Your task to perform on an android device: open app "Move to iOS" (install if not already installed) and enter user name: "Decca@icloud.com" and password: "reabbreviate" Image 0: 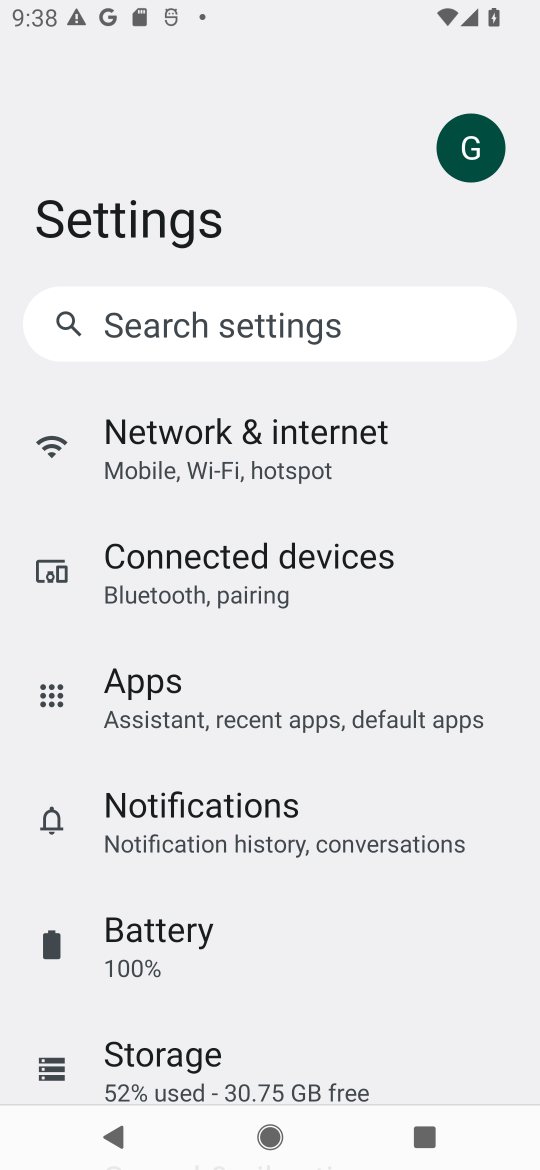
Step 0: press home button
Your task to perform on an android device: open app "Move to iOS" (install if not already installed) and enter user name: "Decca@icloud.com" and password: "reabbreviate" Image 1: 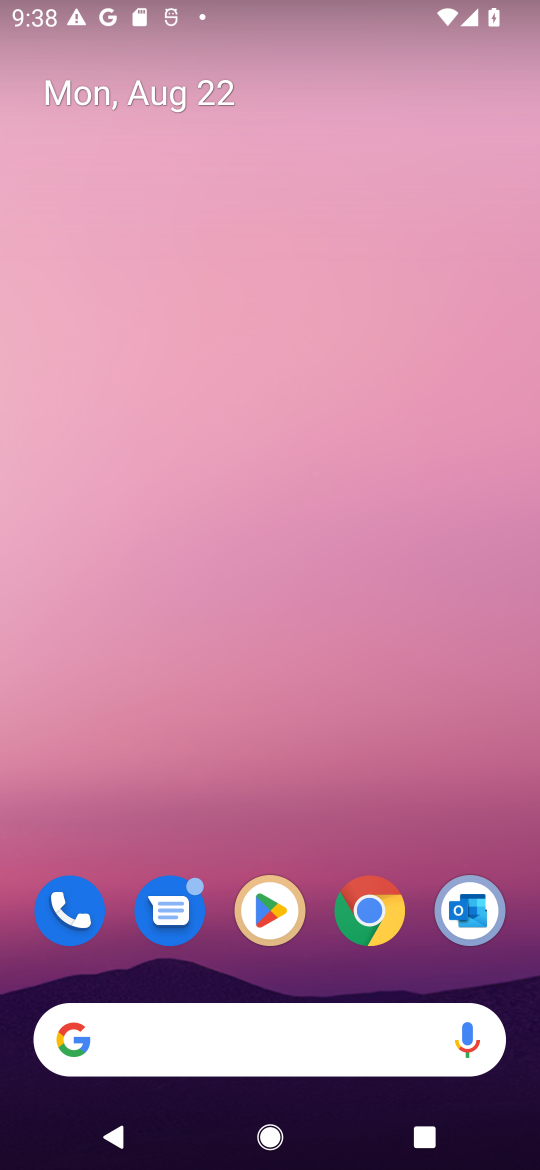
Step 1: click (266, 903)
Your task to perform on an android device: open app "Move to iOS" (install if not already installed) and enter user name: "Decca@icloud.com" and password: "reabbreviate" Image 2: 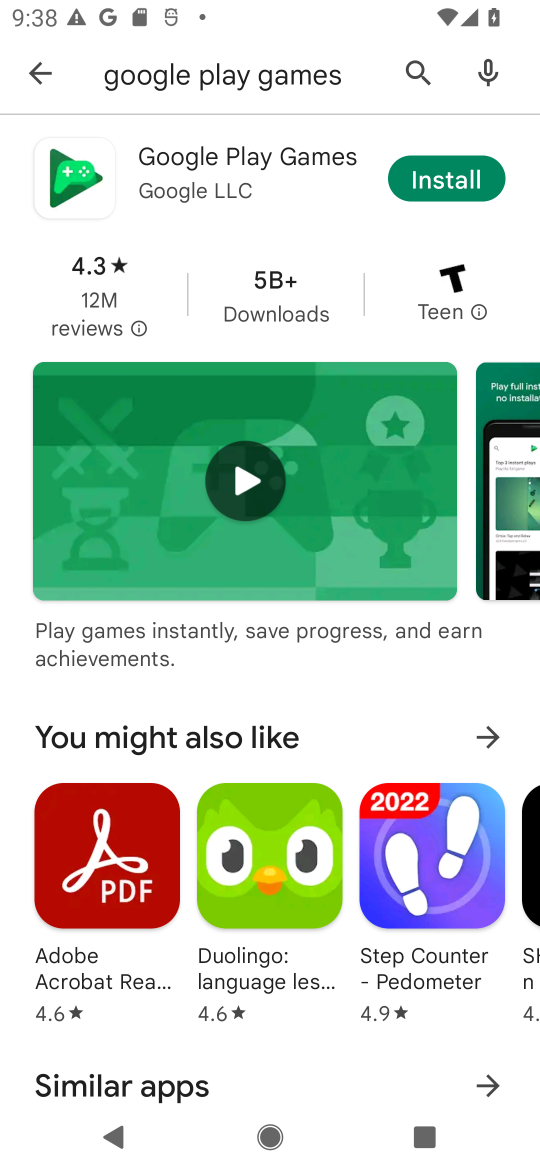
Step 2: click (413, 58)
Your task to perform on an android device: open app "Move to iOS" (install if not already installed) and enter user name: "Decca@icloud.com" and password: "reabbreviate" Image 3: 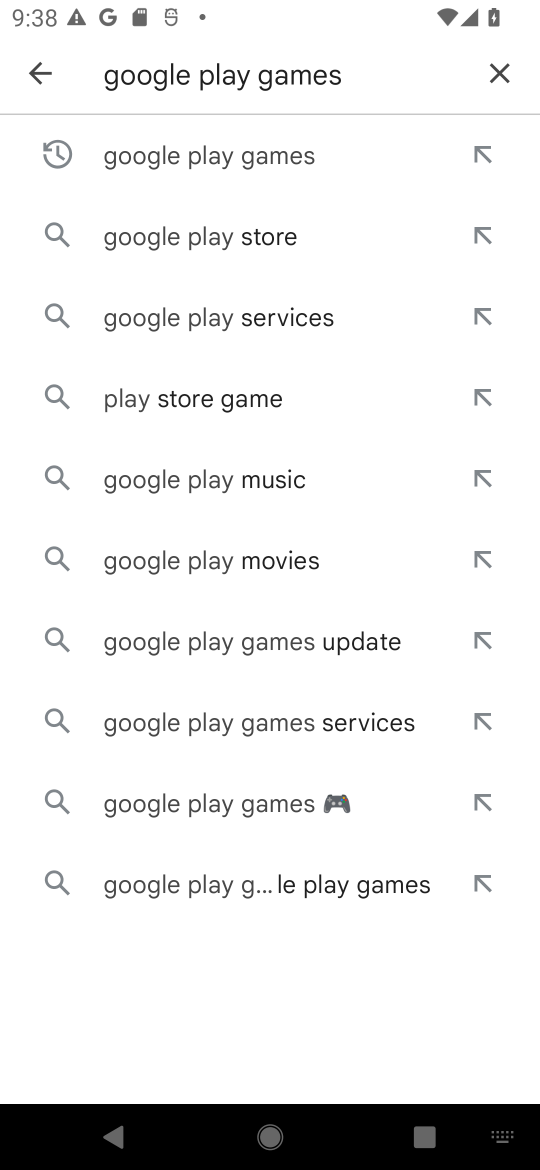
Step 3: click (498, 65)
Your task to perform on an android device: open app "Move to iOS" (install if not already installed) and enter user name: "Decca@icloud.com" and password: "reabbreviate" Image 4: 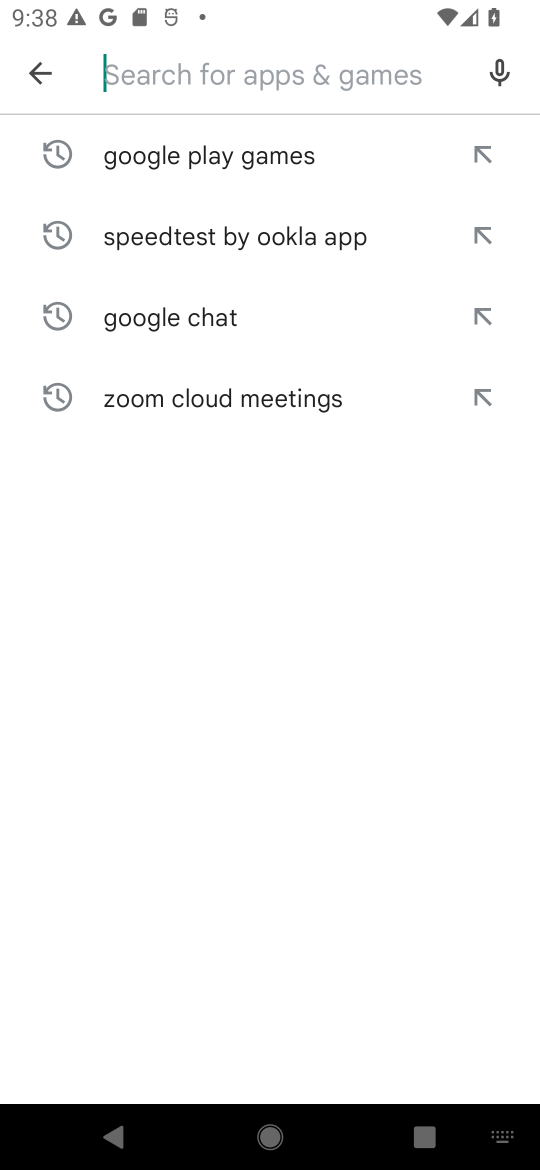
Step 4: type "Move to iOS"
Your task to perform on an android device: open app "Move to iOS" (install if not already installed) and enter user name: "Decca@icloud.com" and password: "reabbreviate" Image 5: 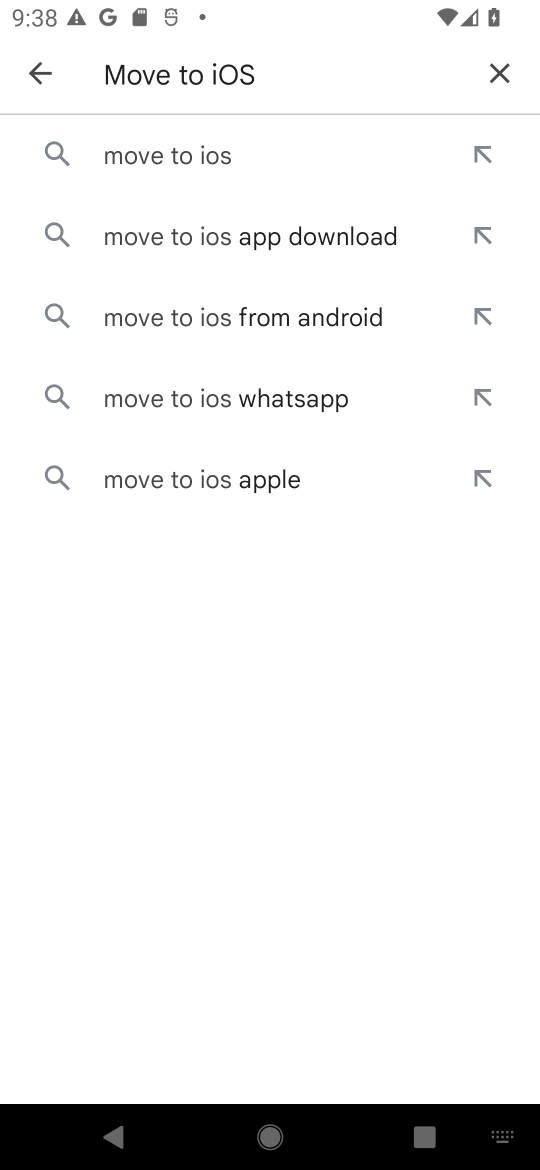
Step 5: click (186, 152)
Your task to perform on an android device: open app "Move to iOS" (install if not already installed) and enter user name: "Decca@icloud.com" and password: "reabbreviate" Image 6: 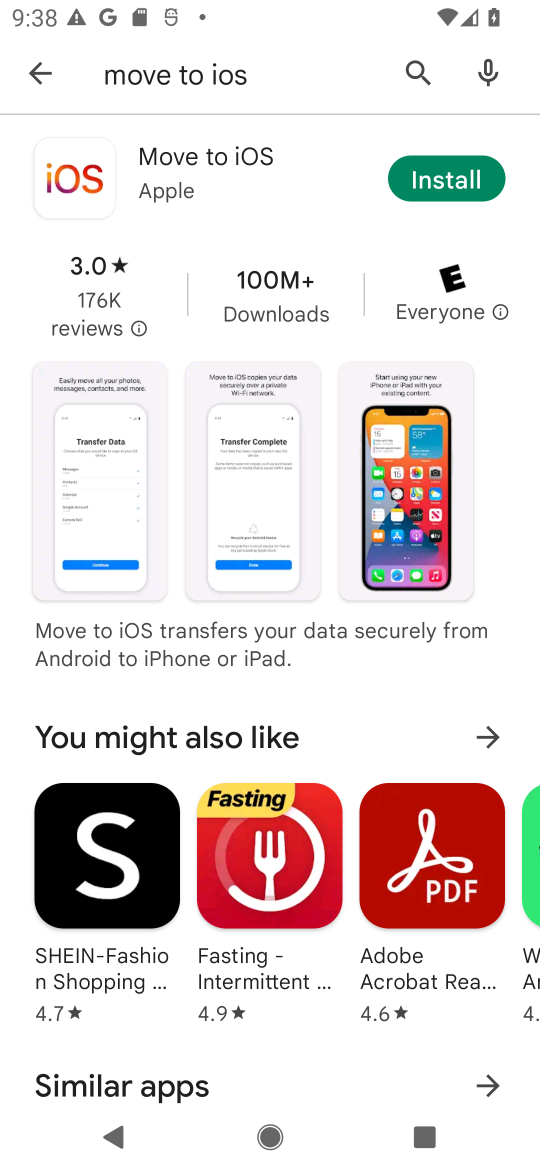
Step 6: click (428, 191)
Your task to perform on an android device: open app "Move to iOS" (install if not already installed) and enter user name: "Decca@icloud.com" and password: "reabbreviate" Image 7: 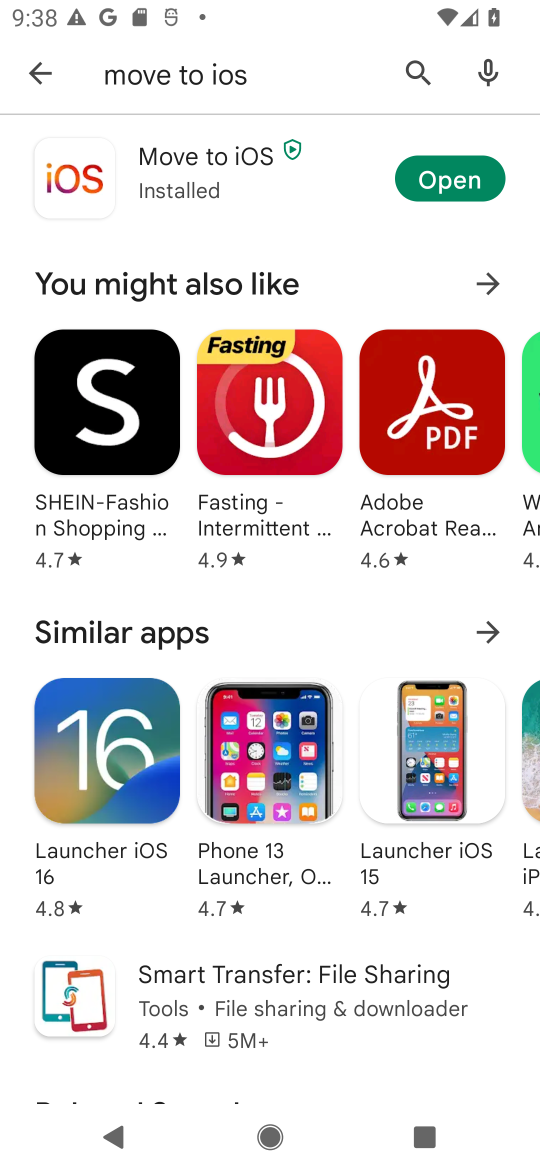
Step 7: click (429, 184)
Your task to perform on an android device: open app "Move to iOS" (install if not already installed) and enter user name: "Decca@icloud.com" and password: "reabbreviate" Image 8: 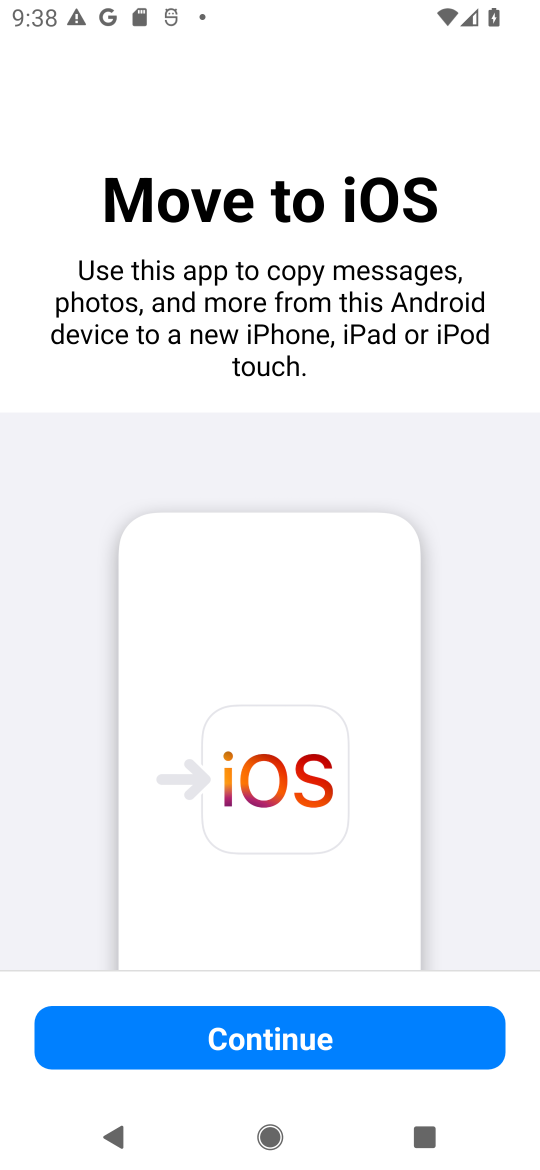
Step 8: click (338, 1055)
Your task to perform on an android device: open app "Move to iOS" (install if not already installed) and enter user name: "Decca@icloud.com" and password: "reabbreviate" Image 9: 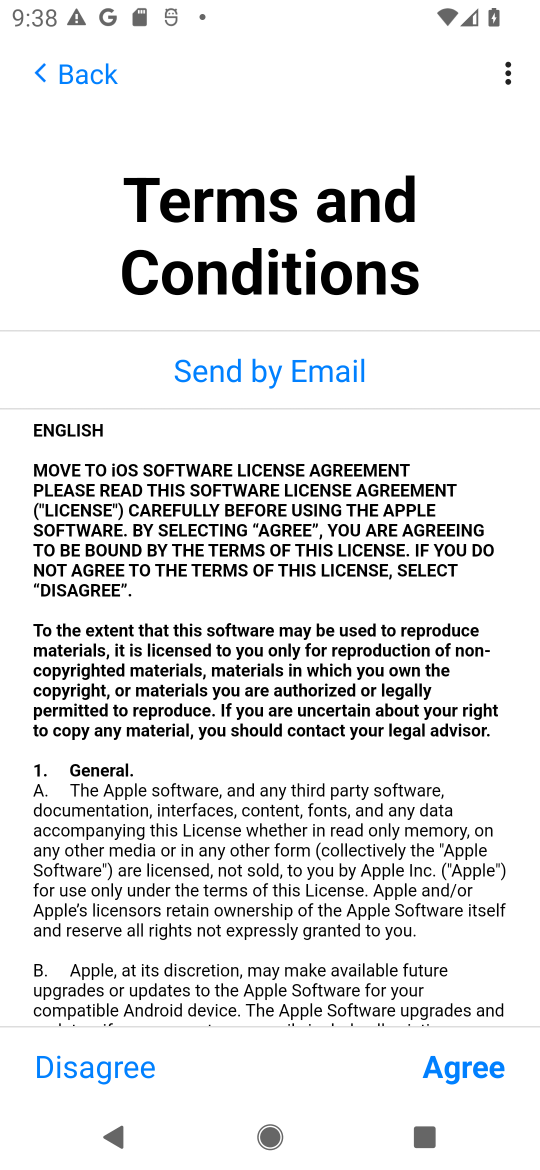
Step 9: click (423, 1069)
Your task to perform on an android device: open app "Move to iOS" (install if not already installed) and enter user name: "Decca@icloud.com" and password: "reabbreviate" Image 10: 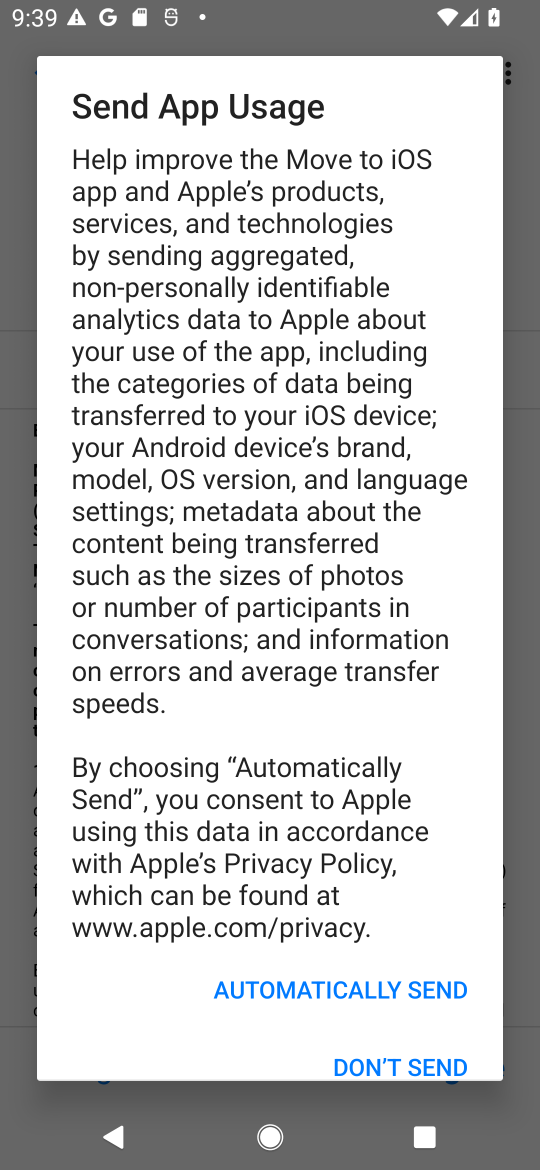
Step 10: click (391, 1050)
Your task to perform on an android device: open app "Move to iOS" (install if not already installed) and enter user name: "Decca@icloud.com" and password: "reabbreviate" Image 11: 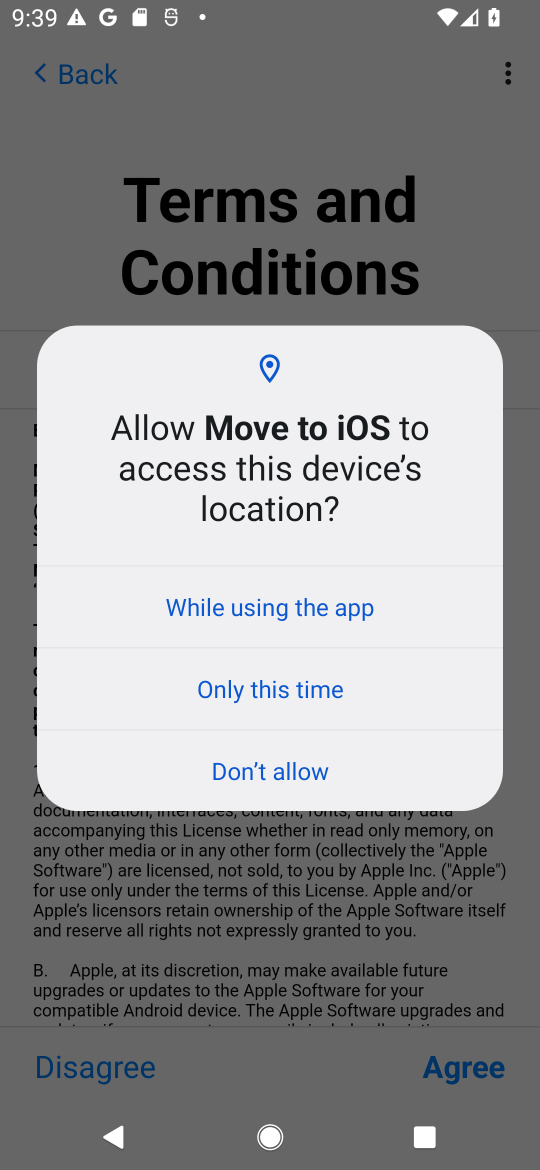
Step 11: click (336, 757)
Your task to perform on an android device: open app "Move to iOS" (install if not already installed) and enter user name: "Decca@icloud.com" and password: "reabbreviate" Image 12: 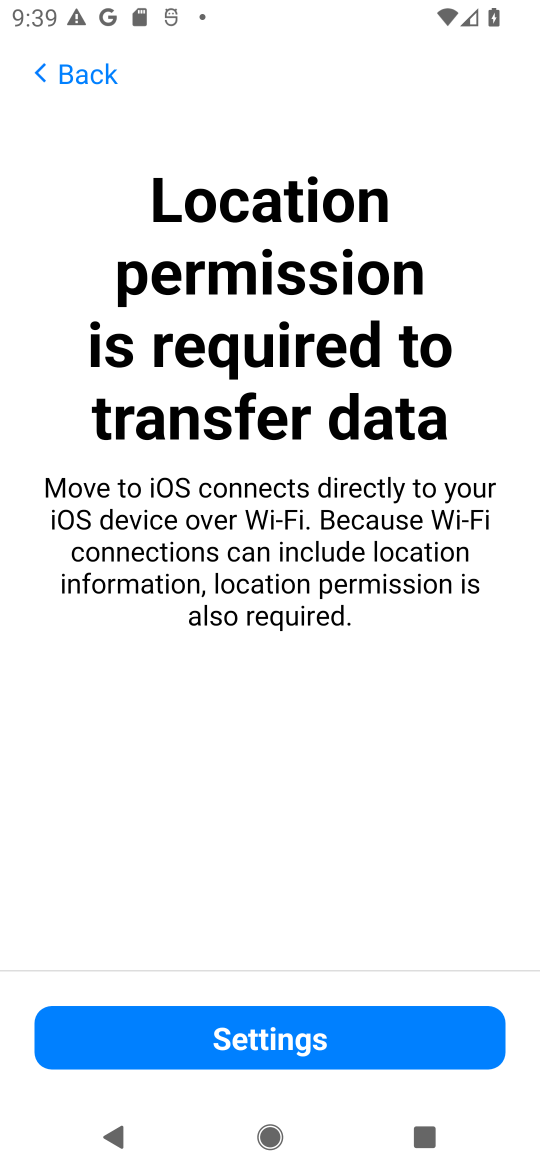
Step 12: task complete